Your task to perform on an android device: Open the web browser Image 0: 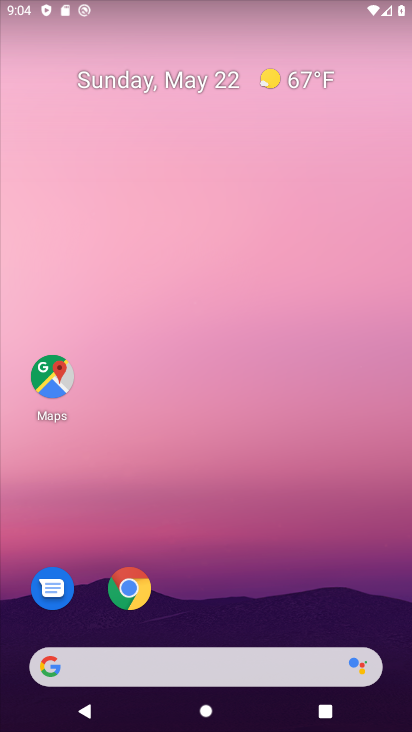
Step 0: click (143, 579)
Your task to perform on an android device: Open the web browser Image 1: 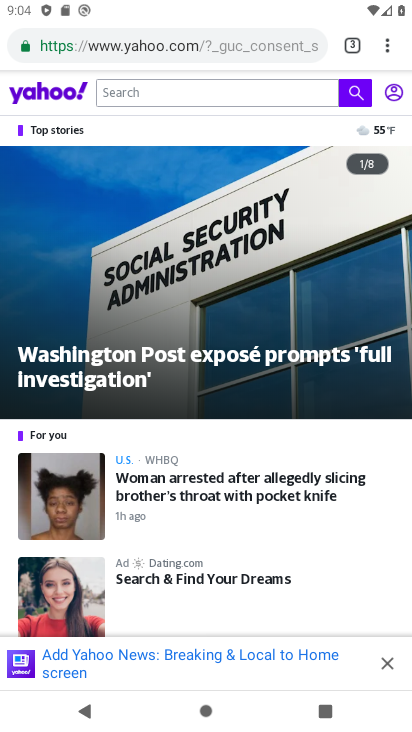
Step 1: task complete